Your task to perform on an android device: Open Google Maps and go to "Timeline" Image 0: 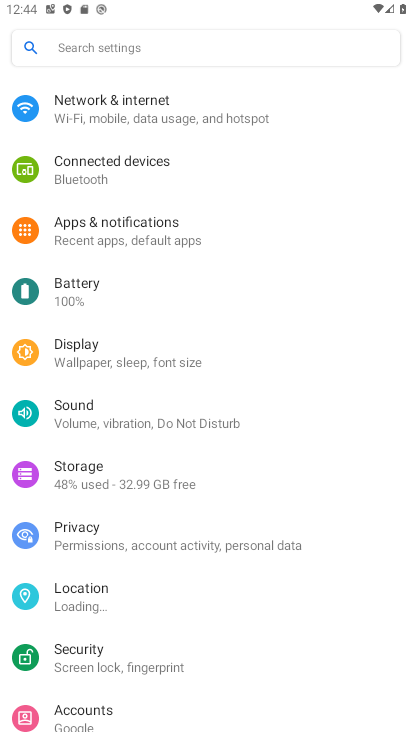
Step 0: press home button
Your task to perform on an android device: Open Google Maps and go to "Timeline" Image 1: 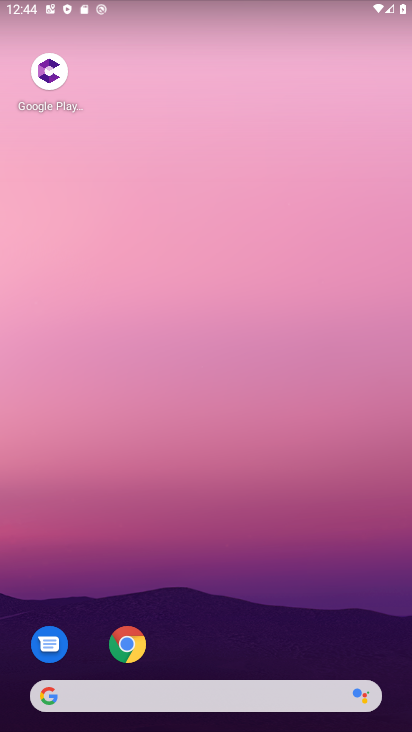
Step 1: drag from (1, 467) to (404, 474)
Your task to perform on an android device: Open Google Maps and go to "Timeline" Image 2: 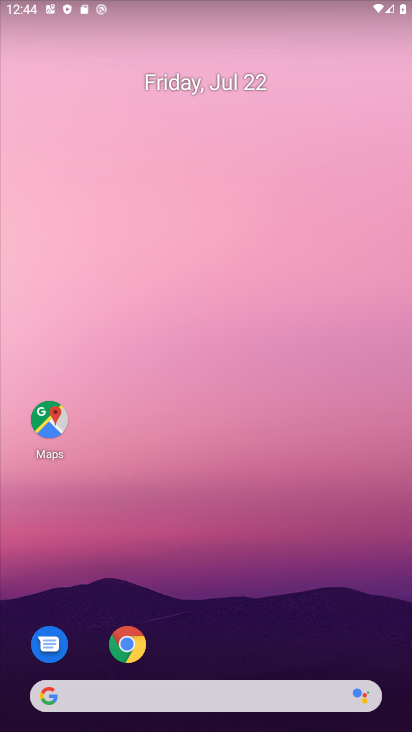
Step 2: click (49, 422)
Your task to perform on an android device: Open Google Maps and go to "Timeline" Image 3: 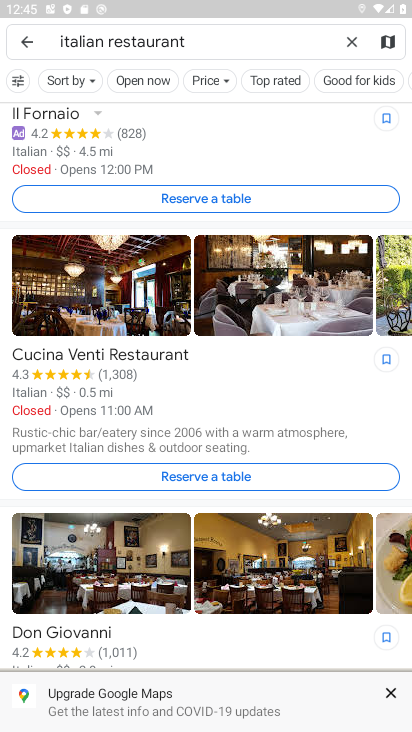
Step 3: click (28, 40)
Your task to perform on an android device: Open Google Maps and go to "Timeline" Image 4: 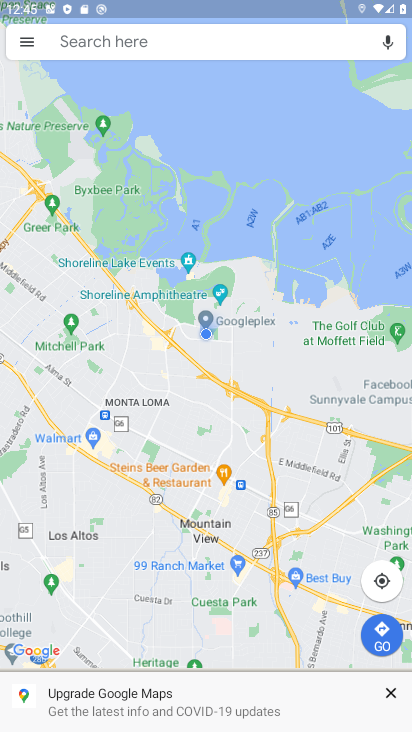
Step 4: click (21, 40)
Your task to perform on an android device: Open Google Maps and go to "Timeline" Image 5: 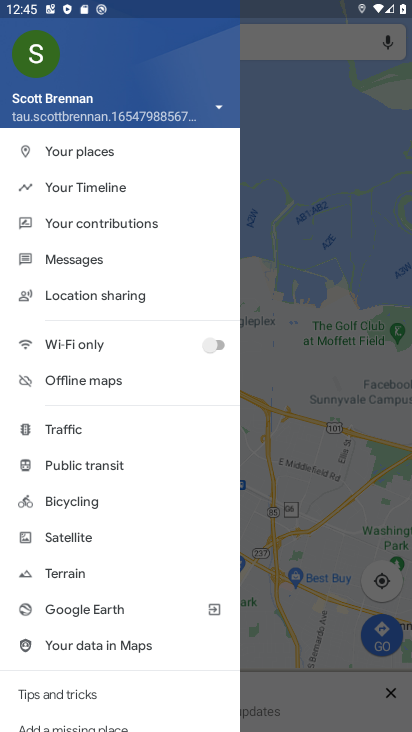
Step 5: click (107, 186)
Your task to perform on an android device: Open Google Maps and go to "Timeline" Image 6: 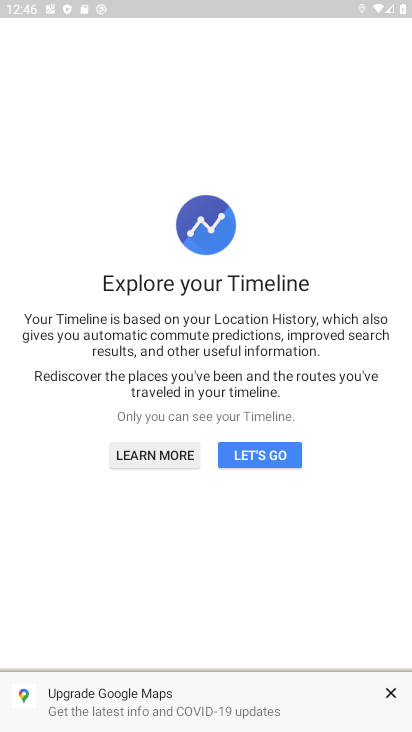
Step 6: click (262, 450)
Your task to perform on an android device: Open Google Maps and go to "Timeline" Image 7: 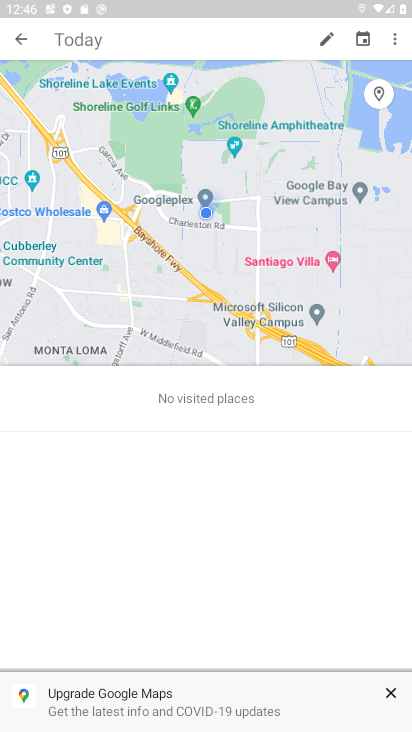
Step 7: task complete